Your task to perform on an android device: Open Chrome and go to settings Image 0: 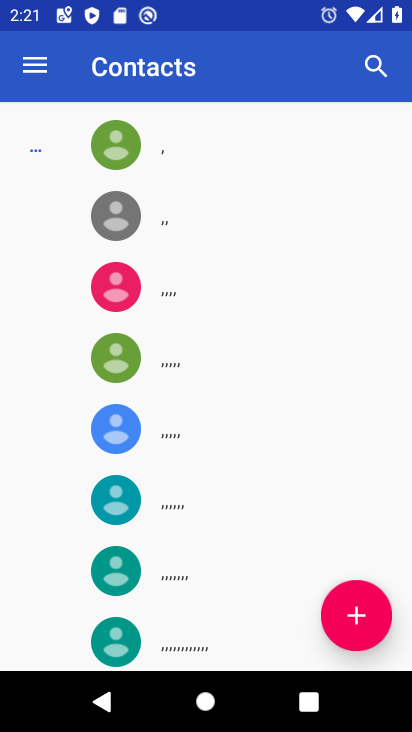
Step 0: press home button
Your task to perform on an android device: Open Chrome and go to settings Image 1: 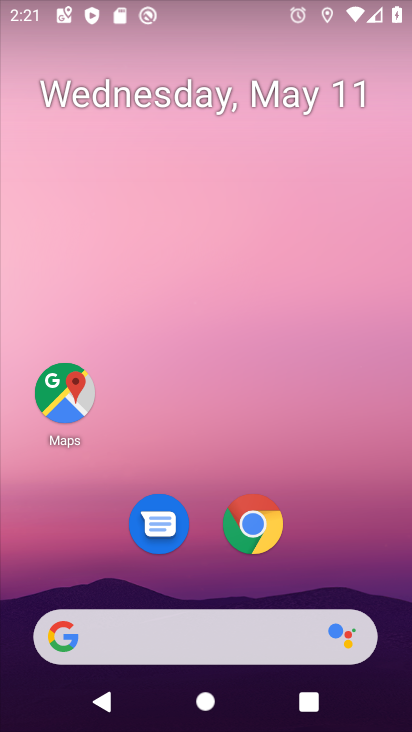
Step 1: click (255, 521)
Your task to perform on an android device: Open Chrome and go to settings Image 2: 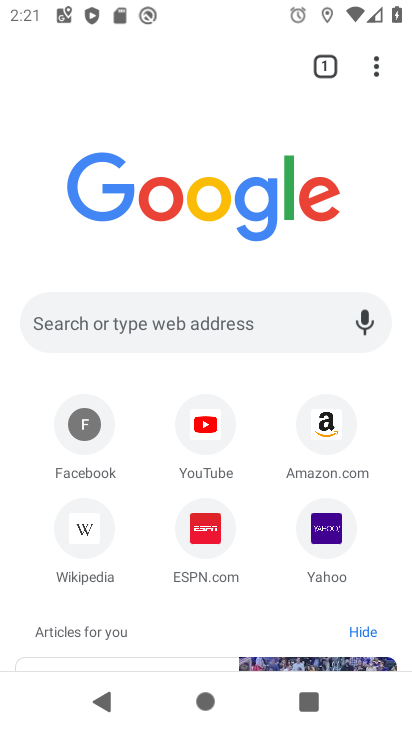
Step 2: click (375, 66)
Your task to perform on an android device: Open Chrome and go to settings Image 3: 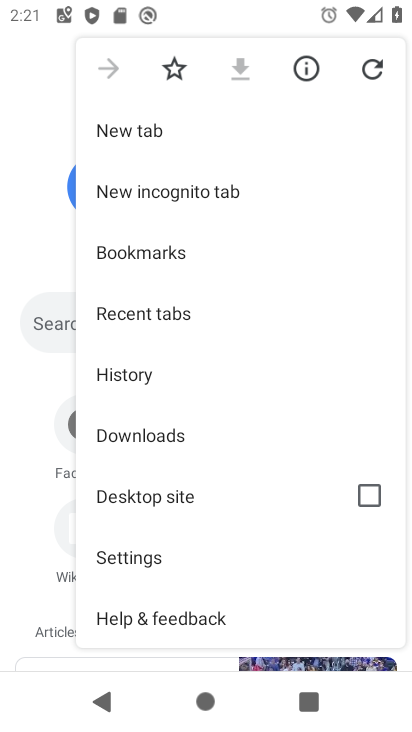
Step 3: click (168, 550)
Your task to perform on an android device: Open Chrome and go to settings Image 4: 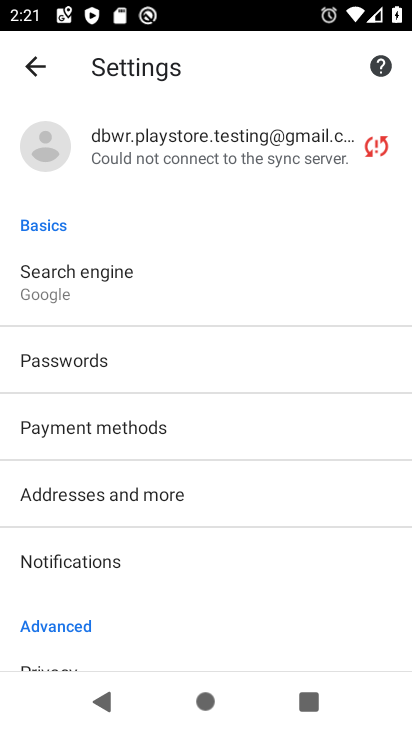
Step 4: task complete